Your task to perform on an android device: turn off picture-in-picture Image 0: 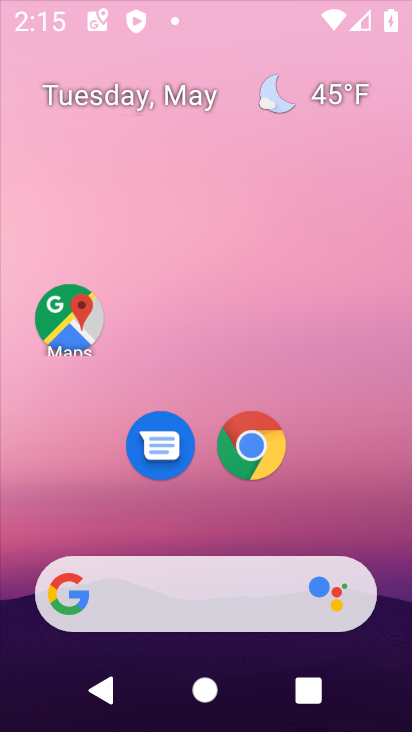
Step 0: click (252, 457)
Your task to perform on an android device: turn off picture-in-picture Image 1: 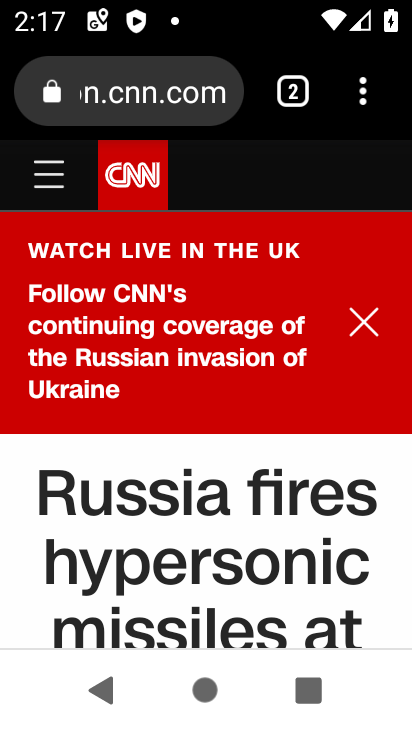
Step 1: press back button
Your task to perform on an android device: turn off picture-in-picture Image 2: 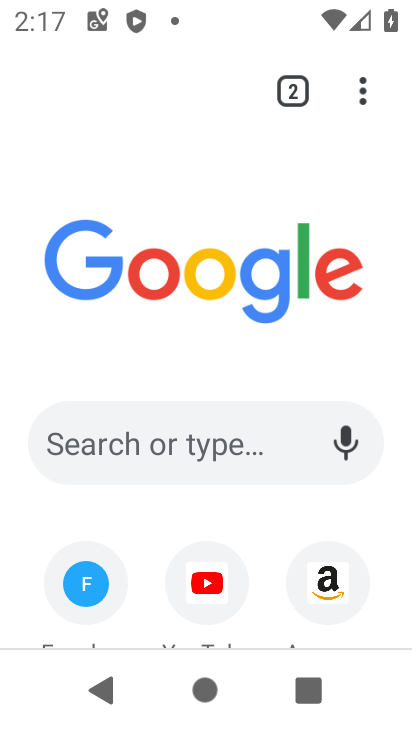
Step 2: press back button
Your task to perform on an android device: turn off picture-in-picture Image 3: 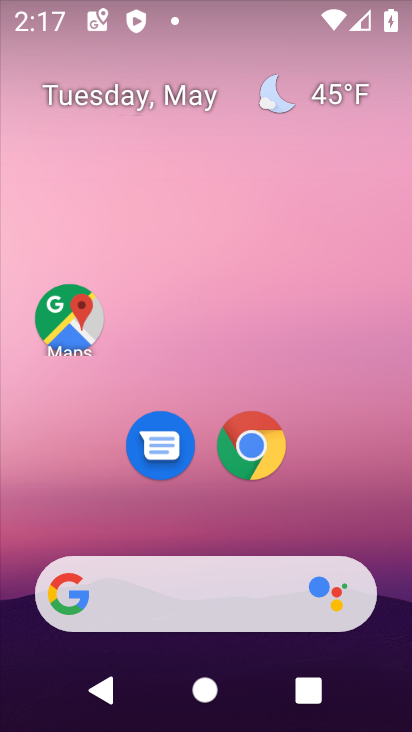
Step 3: drag from (204, 538) to (331, 13)
Your task to perform on an android device: turn off picture-in-picture Image 4: 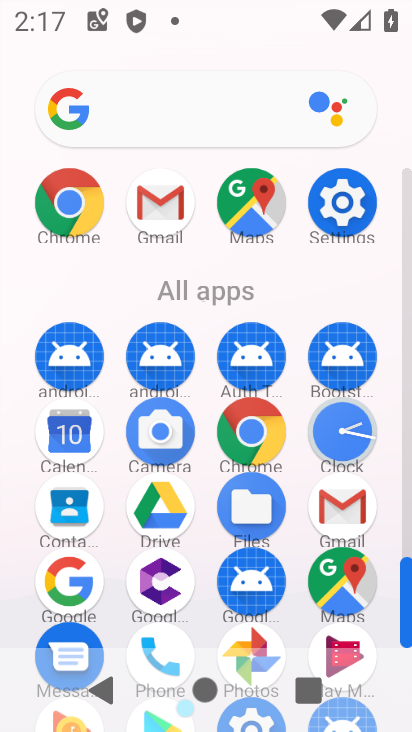
Step 4: click (342, 204)
Your task to perform on an android device: turn off picture-in-picture Image 5: 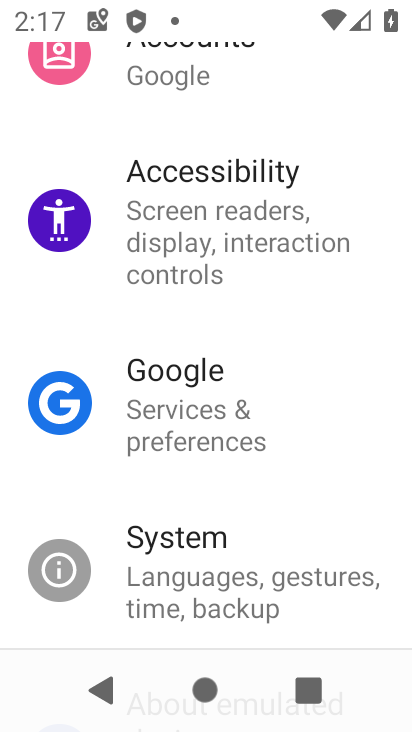
Step 5: drag from (223, 192) to (172, 669)
Your task to perform on an android device: turn off picture-in-picture Image 6: 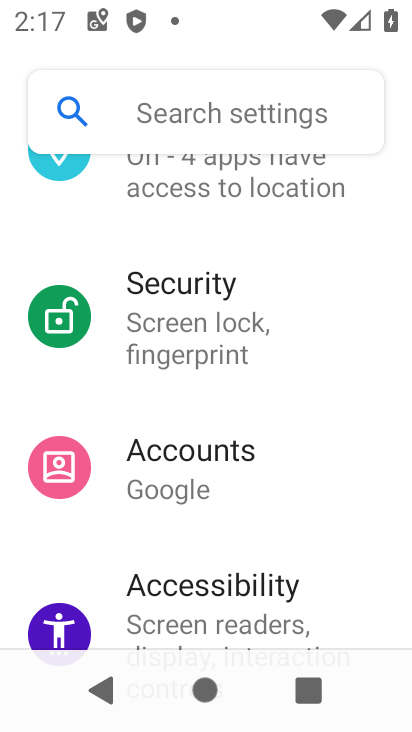
Step 6: drag from (218, 240) to (149, 726)
Your task to perform on an android device: turn off picture-in-picture Image 7: 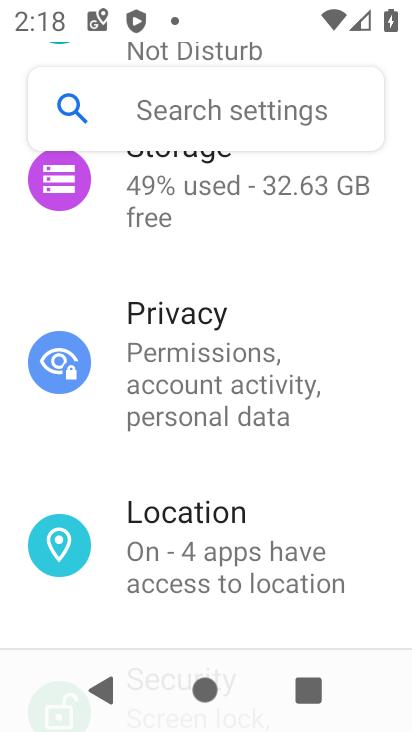
Step 7: drag from (267, 258) to (186, 727)
Your task to perform on an android device: turn off picture-in-picture Image 8: 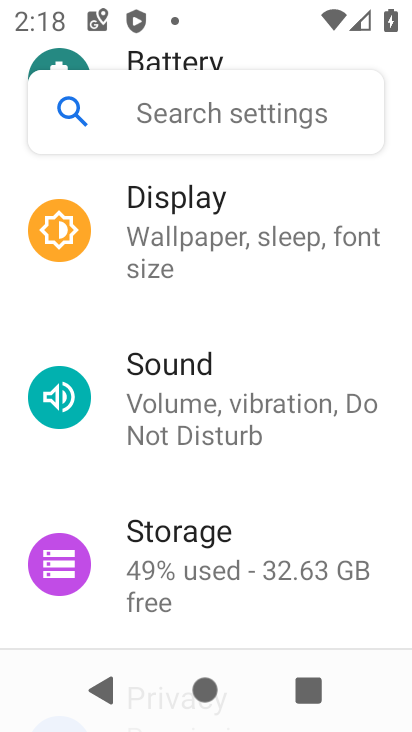
Step 8: drag from (217, 252) to (141, 727)
Your task to perform on an android device: turn off picture-in-picture Image 9: 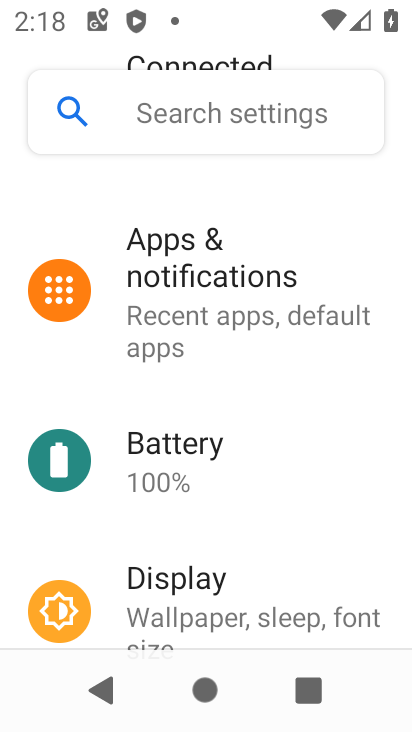
Step 9: drag from (233, 269) to (155, 726)
Your task to perform on an android device: turn off picture-in-picture Image 10: 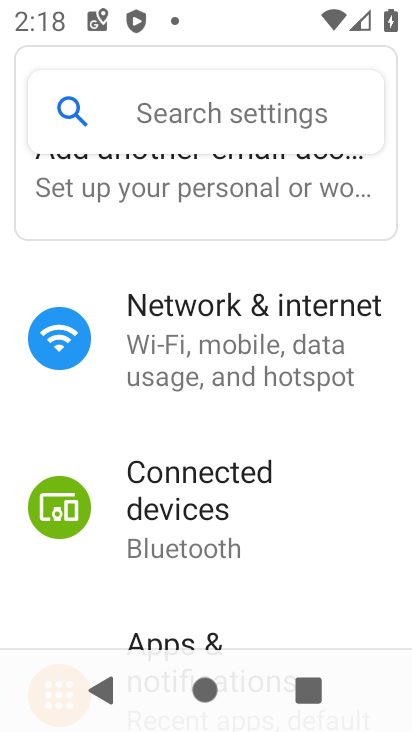
Step 10: click (193, 606)
Your task to perform on an android device: turn off picture-in-picture Image 11: 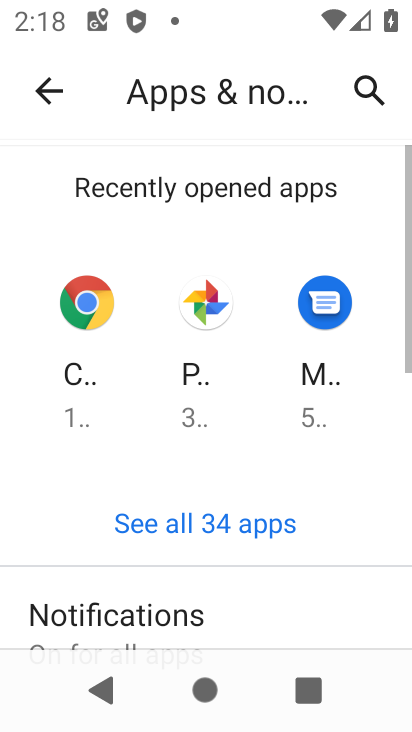
Step 11: drag from (195, 548) to (318, 30)
Your task to perform on an android device: turn off picture-in-picture Image 12: 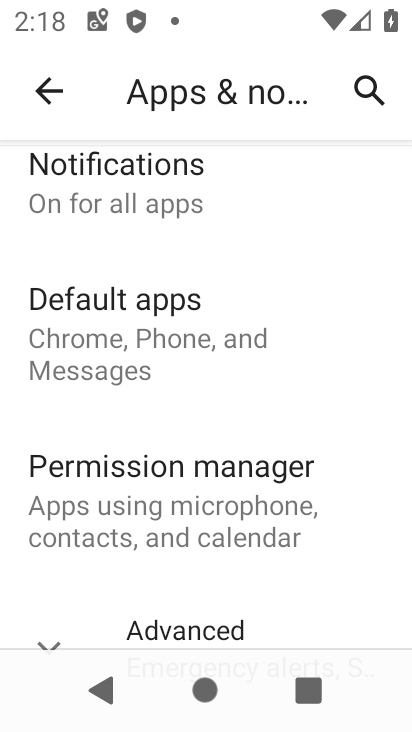
Step 12: drag from (181, 569) to (367, 29)
Your task to perform on an android device: turn off picture-in-picture Image 13: 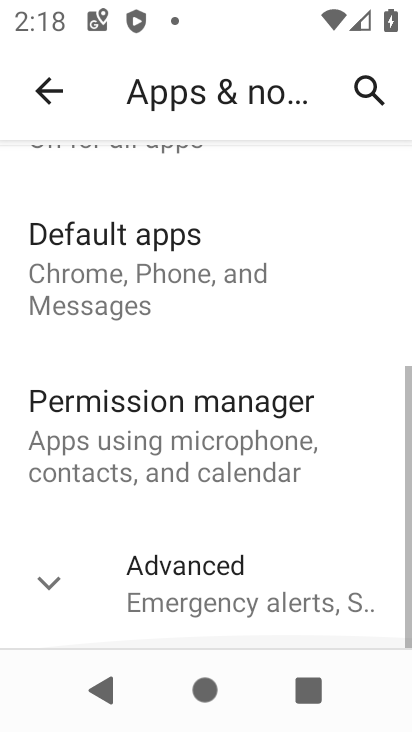
Step 13: click (167, 610)
Your task to perform on an android device: turn off picture-in-picture Image 14: 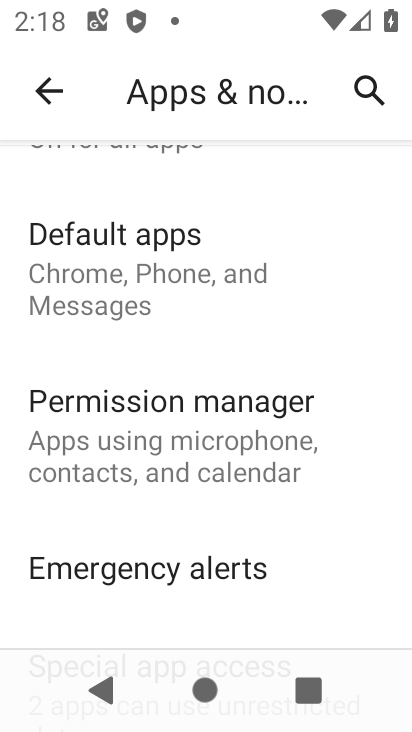
Step 14: drag from (153, 590) to (307, 80)
Your task to perform on an android device: turn off picture-in-picture Image 15: 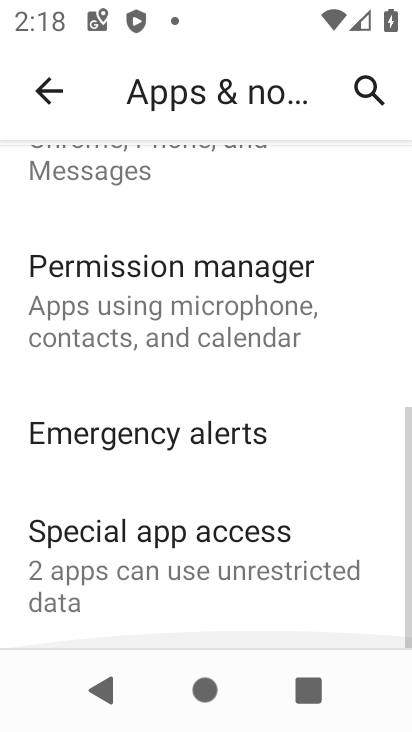
Step 15: click (98, 548)
Your task to perform on an android device: turn off picture-in-picture Image 16: 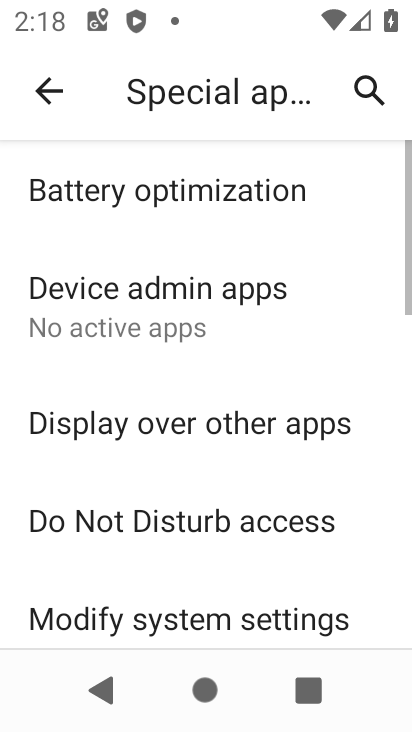
Step 16: drag from (149, 586) to (286, 69)
Your task to perform on an android device: turn off picture-in-picture Image 17: 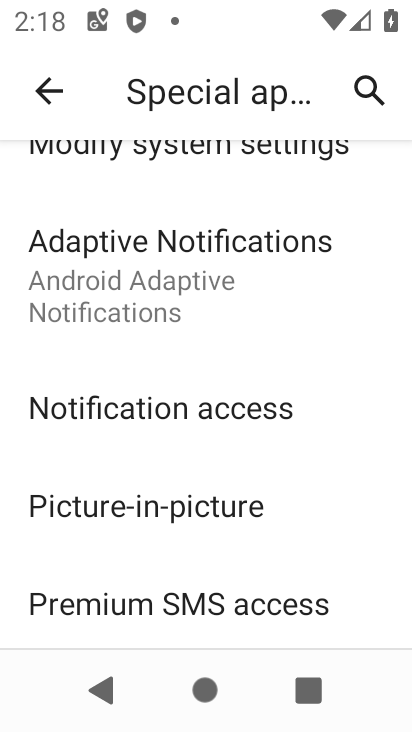
Step 17: click (121, 512)
Your task to perform on an android device: turn off picture-in-picture Image 18: 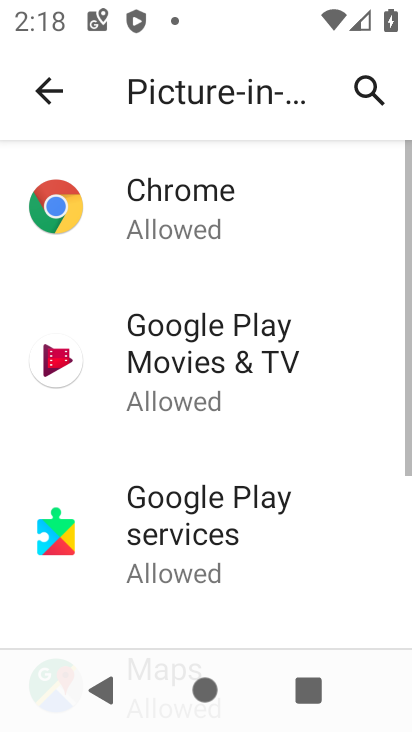
Step 18: click (189, 205)
Your task to perform on an android device: turn off picture-in-picture Image 19: 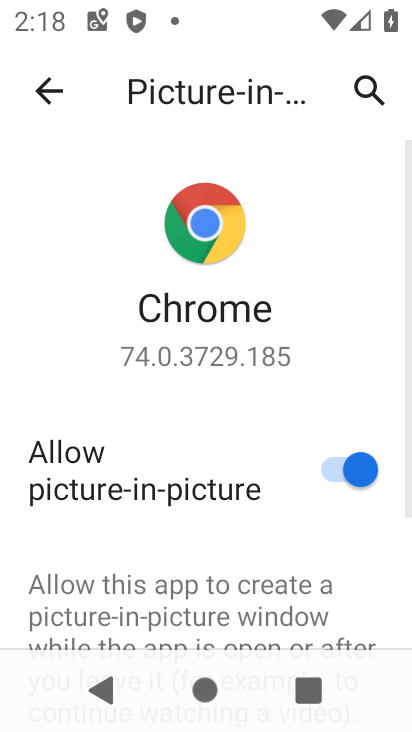
Step 19: click (346, 472)
Your task to perform on an android device: turn off picture-in-picture Image 20: 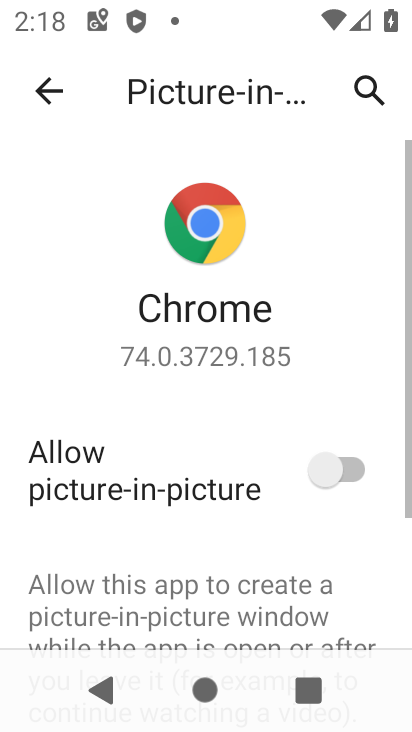
Step 20: task complete